Your task to perform on an android device: see sites visited before in the chrome app Image 0: 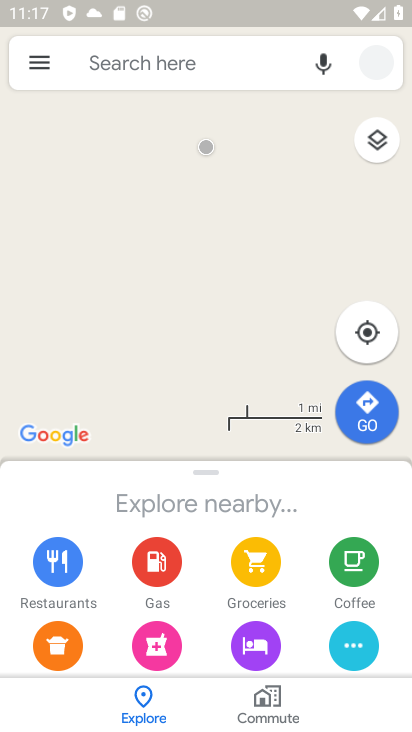
Step 0: press home button
Your task to perform on an android device: see sites visited before in the chrome app Image 1: 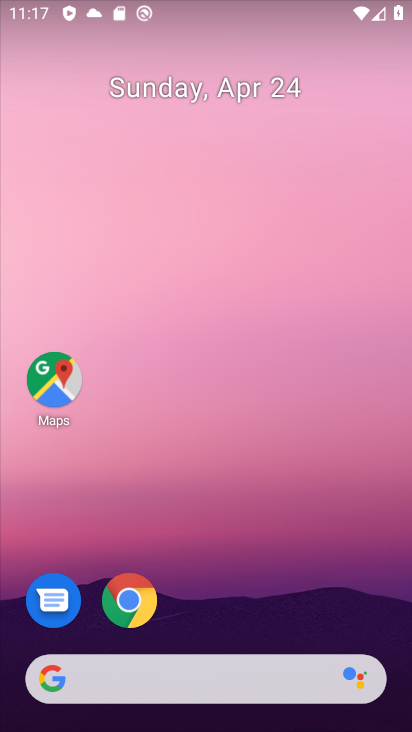
Step 1: click (128, 601)
Your task to perform on an android device: see sites visited before in the chrome app Image 2: 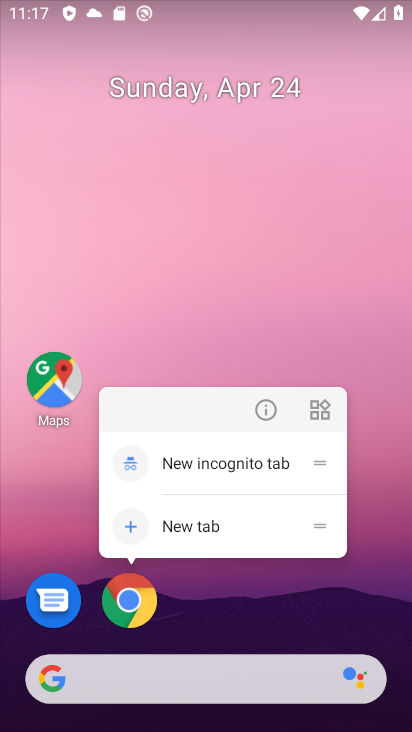
Step 2: click (128, 601)
Your task to perform on an android device: see sites visited before in the chrome app Image 3: 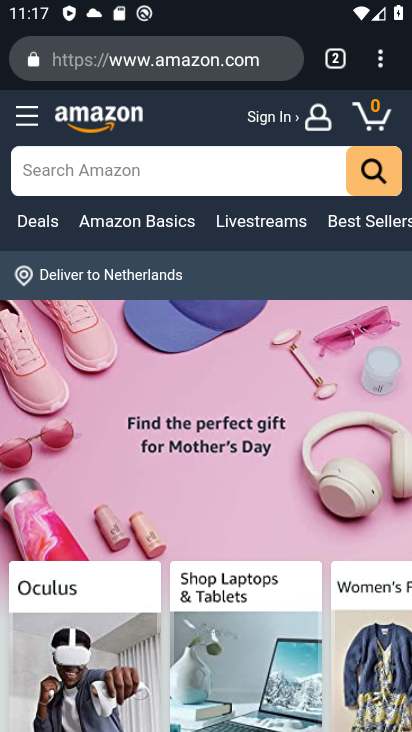
Step 3: click (381, 62)
Your task to perform on an android device: see sites visited before in the chrome app Image 4: 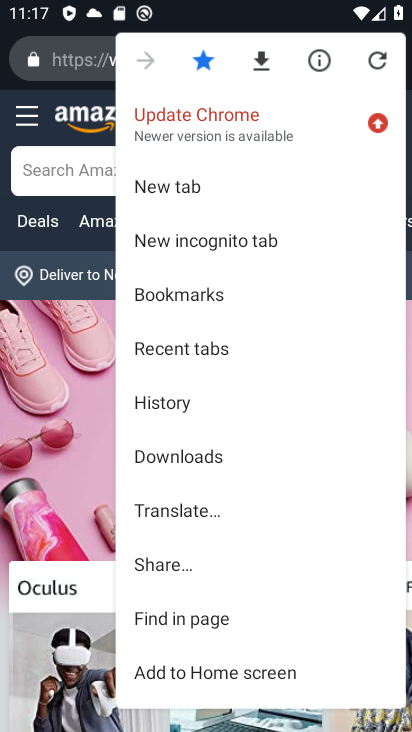
Step 4: click (167, 400)
Your task to perform on an android device: see sites visited before in the chrome app Image 5: 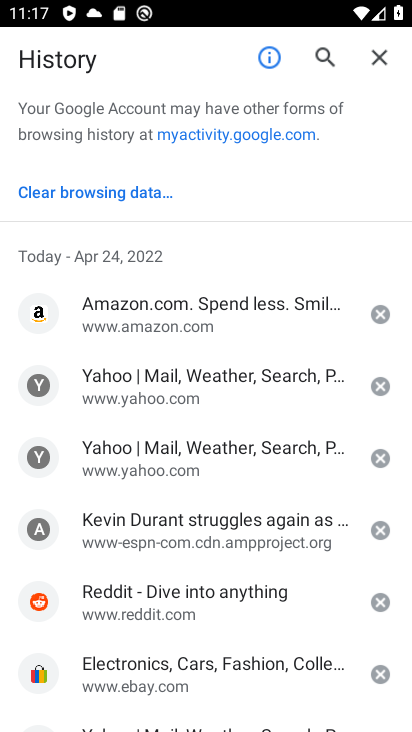
Step 5: task complete